Your task to perform on an android device: Go to Yahoo.com Image 0: 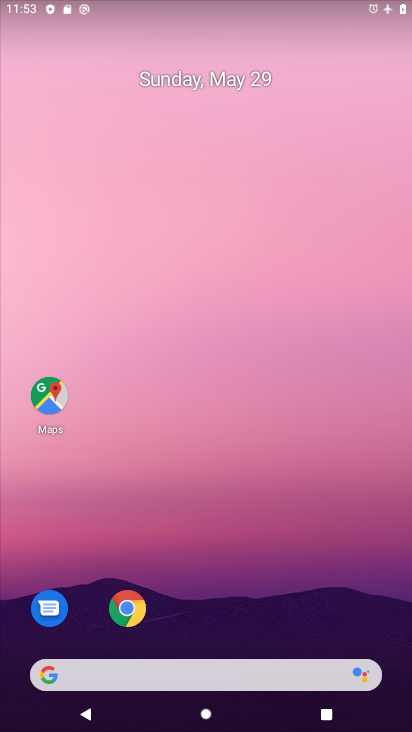
Step 0: click (118, 597)
Your task to perform on an android device: Go to Yahoo.com Image 1: 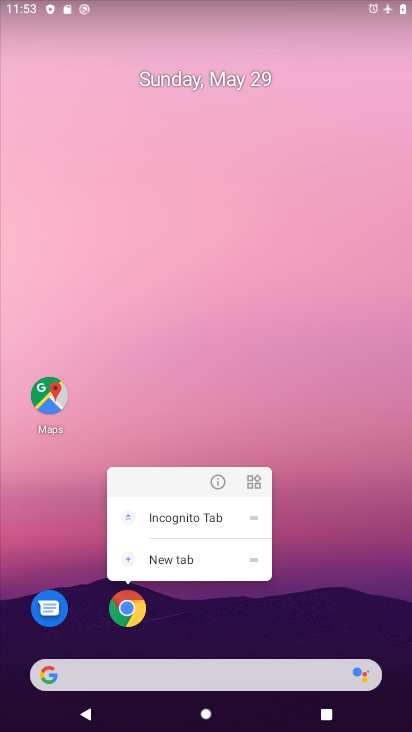
Step 1: click (151, 613)
Your task to perform on an android device: Go to Yahoo.com Image 2: 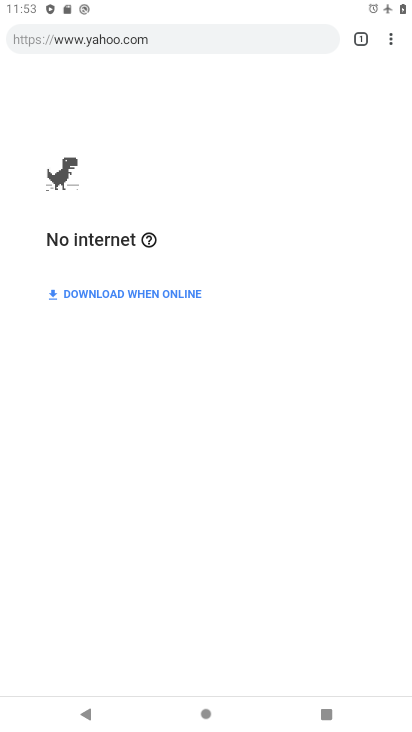
Step 2: click (360, 38)
Your task to perform on an android device: Go to Yahoo.com Image 3: 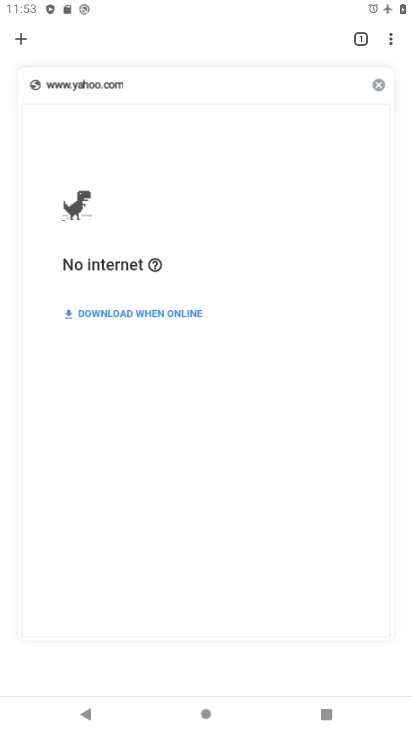
Step 3: click (152, 175)
Your task to perform on an android device: Go to Yahoo.com Image 4: 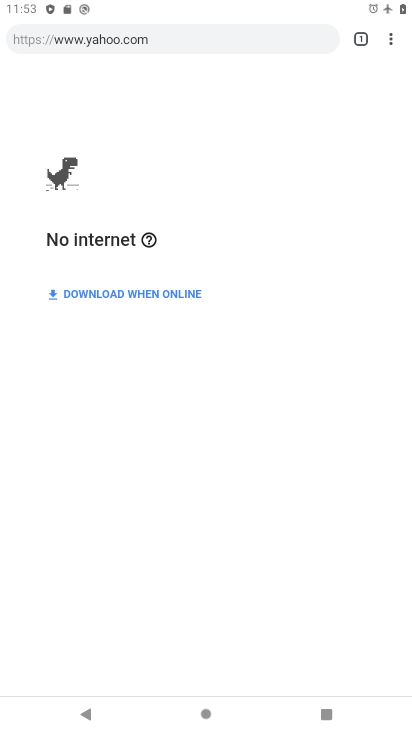
Step 4: task complete